Your task to perform on an android device: When is my next appointment? Image 0: 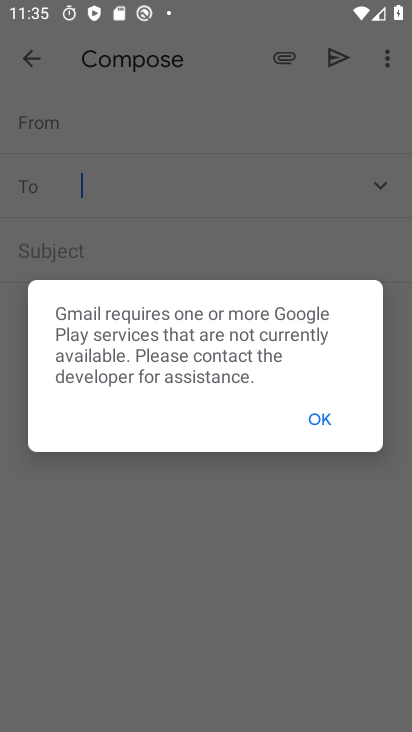
Step 0: drag from (272, 644) to (191, 299)
Your task to perform on an android device: When is my next appointment? Image 1: 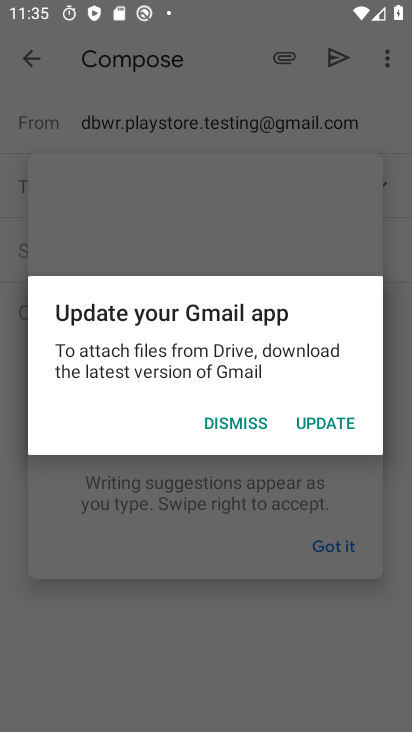
Step 1: click (332, 543)
Your task to perform on an android device: When is my next appointment? Image 2: 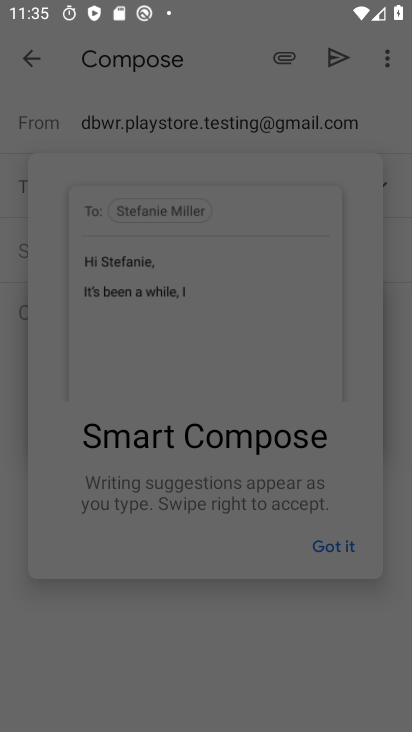
Step 2: click (221, 416)
Your task to perform on an android device: When is my next appointment? Image 3: 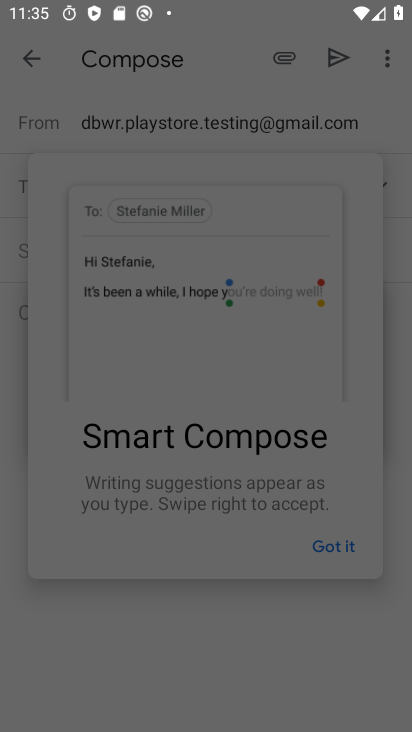
Step 3: click (343, 542)
Your task to perform on an android device: When is my next appointment? Image 4: 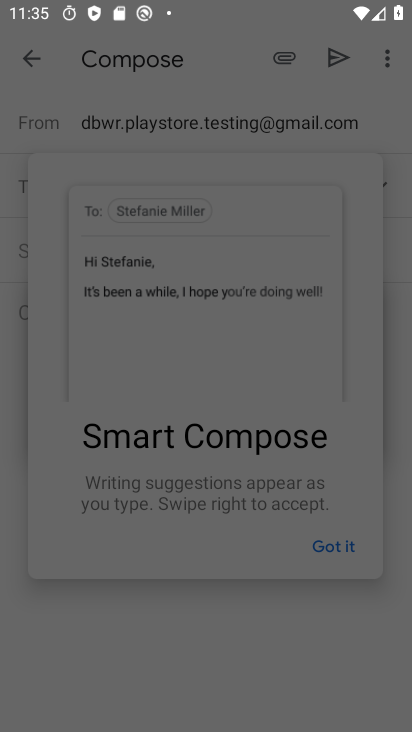
Step 4: press back button
Your task to perform on an android device: When is my next appointment? Image 5: 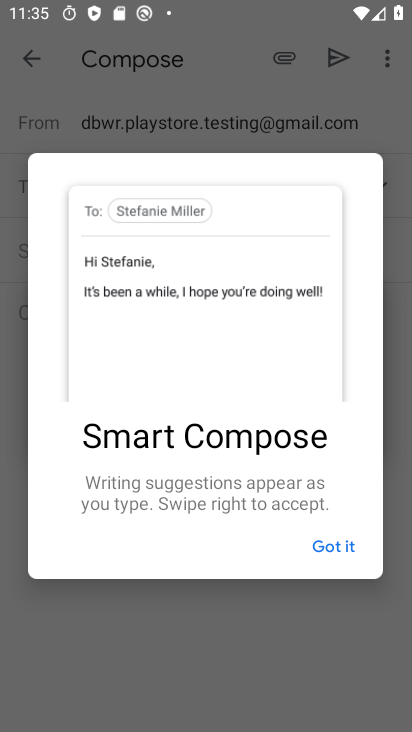
Step 5: click (351, 551)
Your task to perform on an android device: When is my next appointment? Image 6: 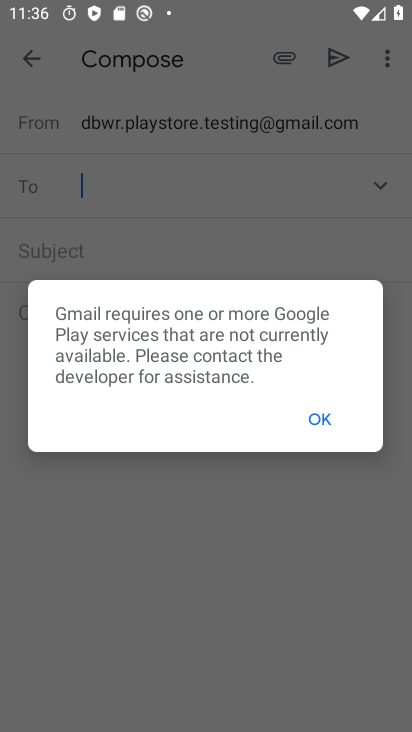
Step 6: click (322, 411)
Your task to perform on an android device: When is my next appointment? Image 7: 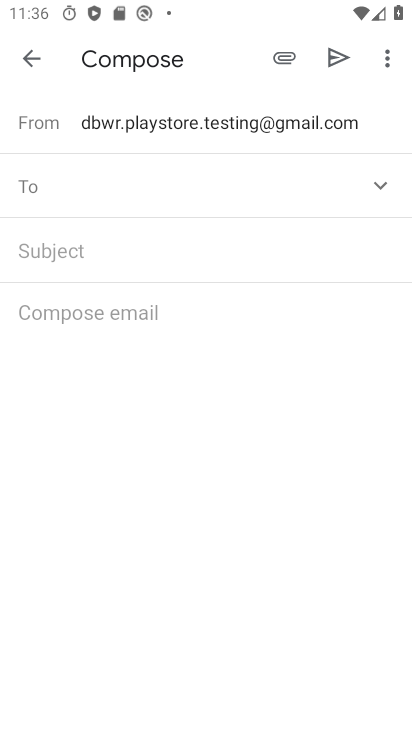
Step 7: press back button
Your task to perform on an android device: When is my next appointment? Image 8: 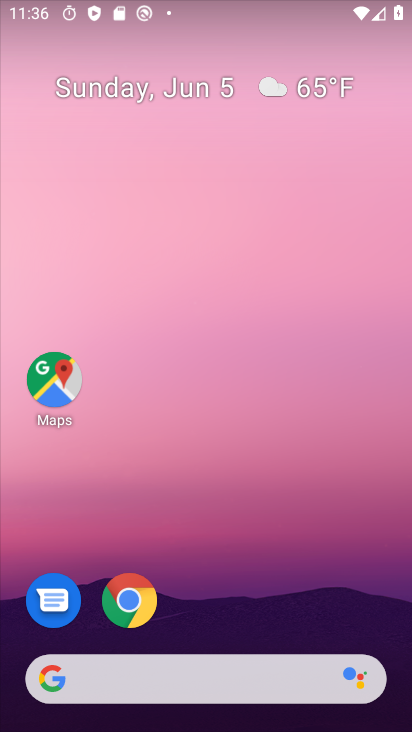
Step 8: drag from (199, 629) to (49, 34)
Your task to perform on an android device: When is my next appointment? Image 9: 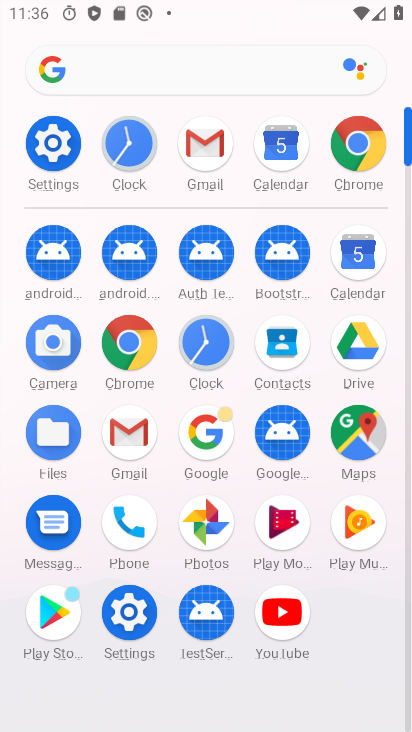
Step 9: click (354, 257)
Your task to perform on an android device: When is my next appointment? Image 10: 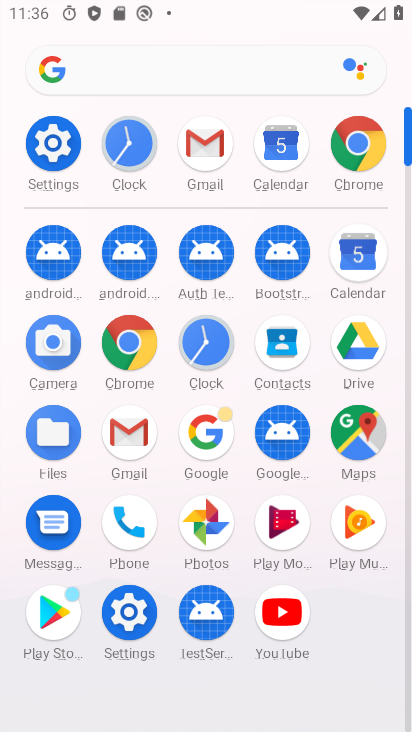
Step 10: click (353, 254)
Your task to perform on an android device: When is my next appointment? Image 11: 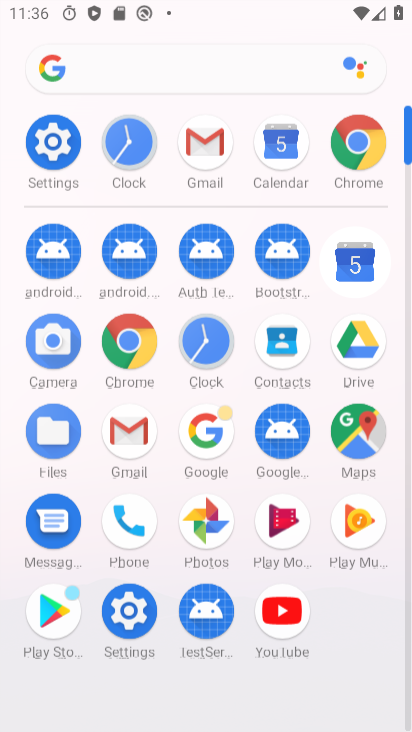
Step 11: click (341, 256)
Your task to perform on an android device: When is my next appointment? Image 12: 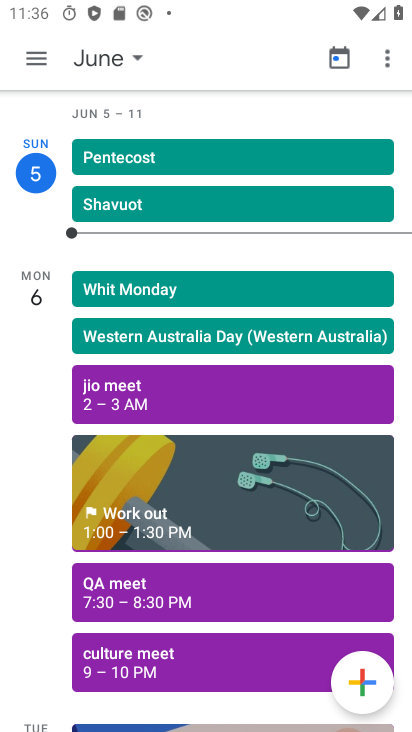
Step 12: click (132, 54)
Your task to perform on an android device: When is my next appointment? Image 13: 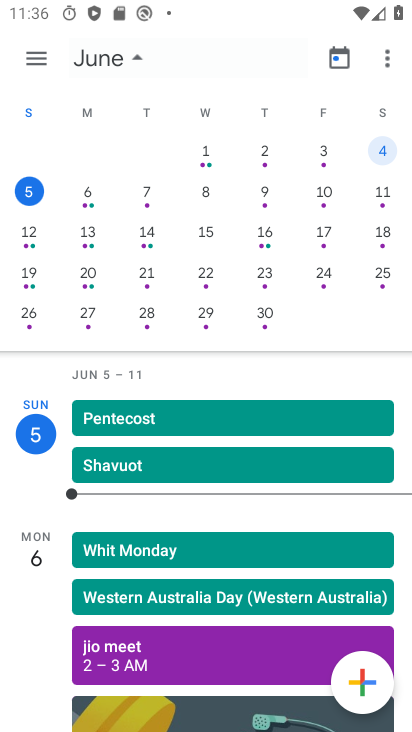
Step 13: task complete